Your task to perform on an android device: install app "Duolingo: language lessons" Image 0: 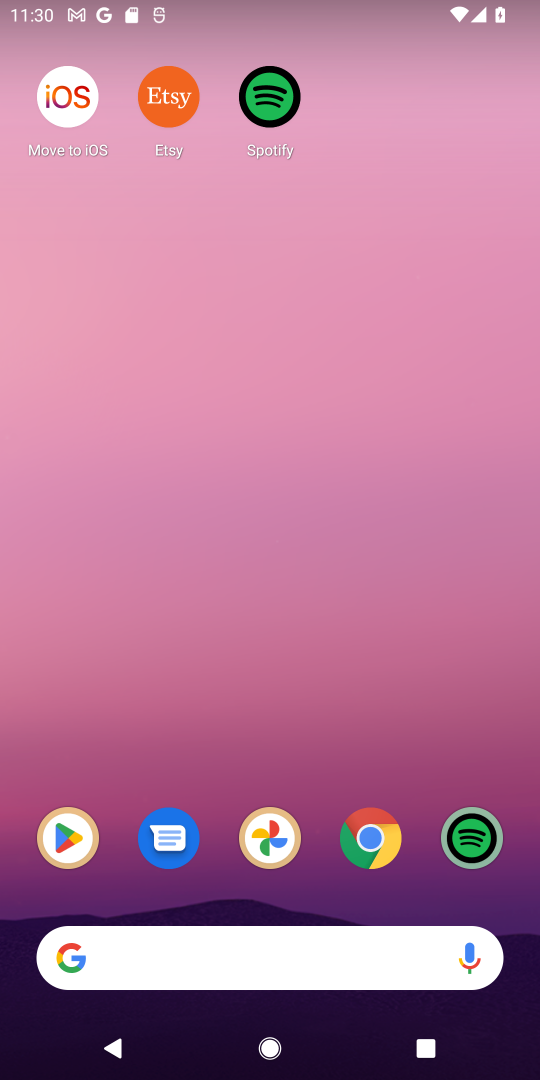
Step 0: click (69, 840)
Your task to perform on an android device: install app "Duolingo: language lessons" Image 1: 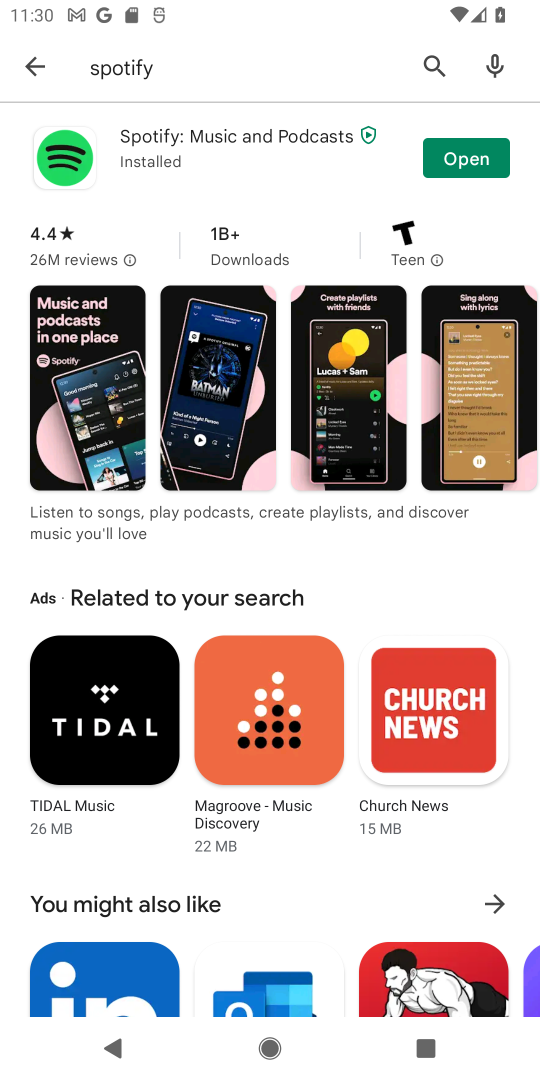
Step 1: click (440, 64)
Your task to perform on an android device: install app "Duolingo: language lessons" Image 2: 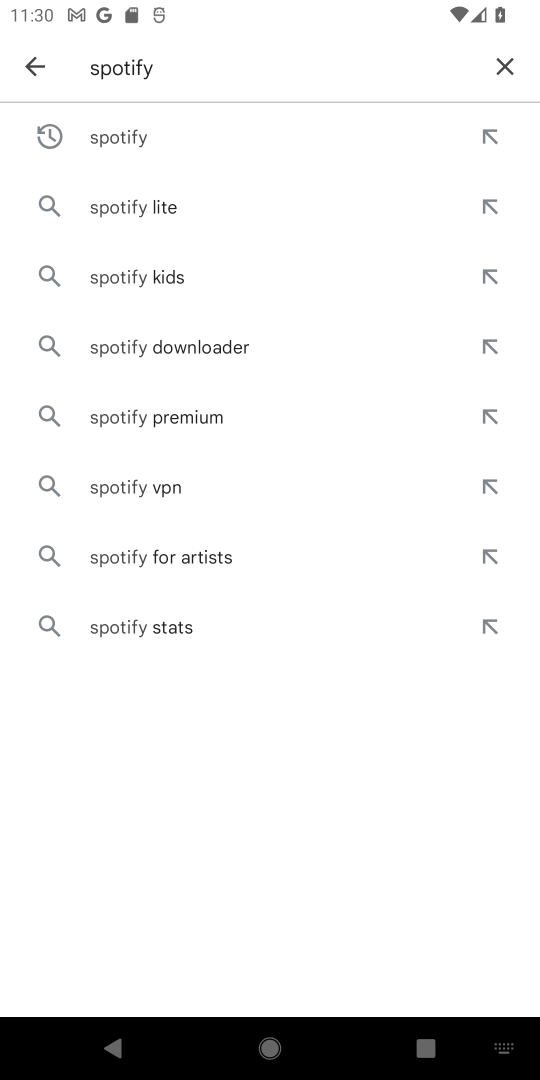
Step 2: click (509, 73)
Your task to perform on an android device: install app "Duolingo: language lessons" Image 3: 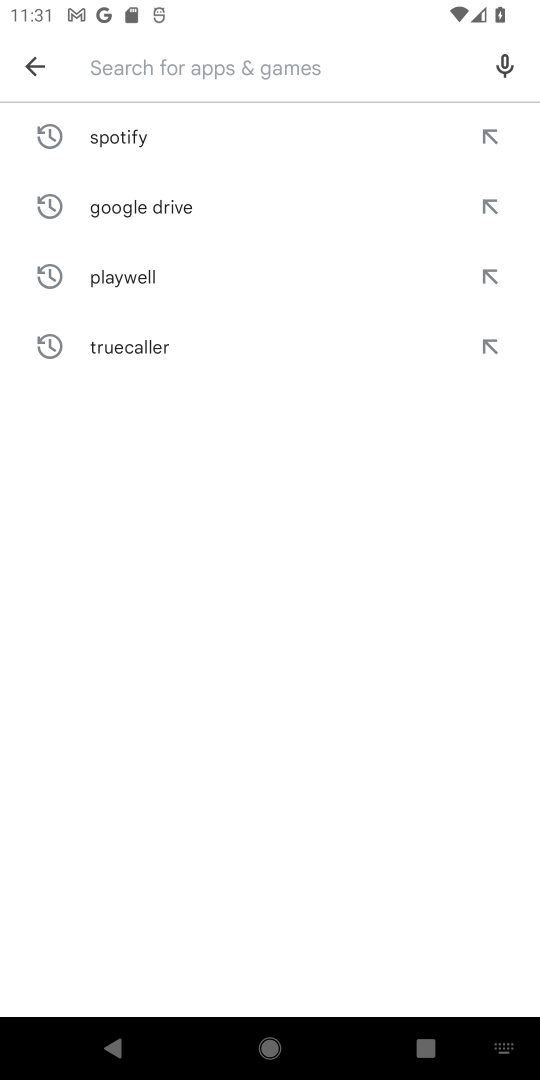
Step 3: type "Duolingo: language lessons"
Your task to perform on an android device: install app "Duolingo: language lessons" Image 4: 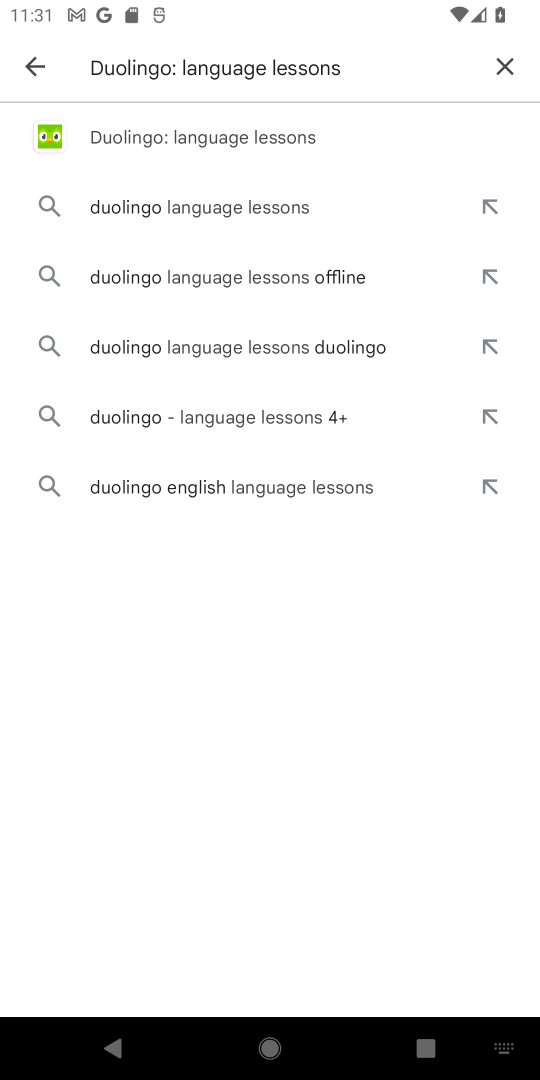
Step 4: click (143, 147)
Your task to perform on an android device: install app "Duolingo: language lessons" Image 5: 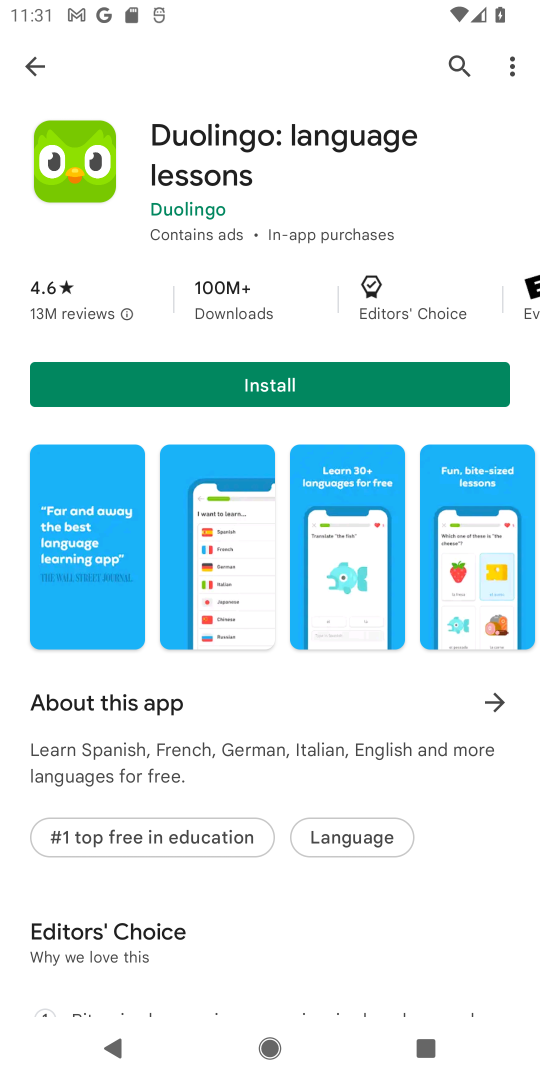
Step 5: click (318, 393)
Your task to perform on an android device: install app "Duolingo: language lessons" Image 6: 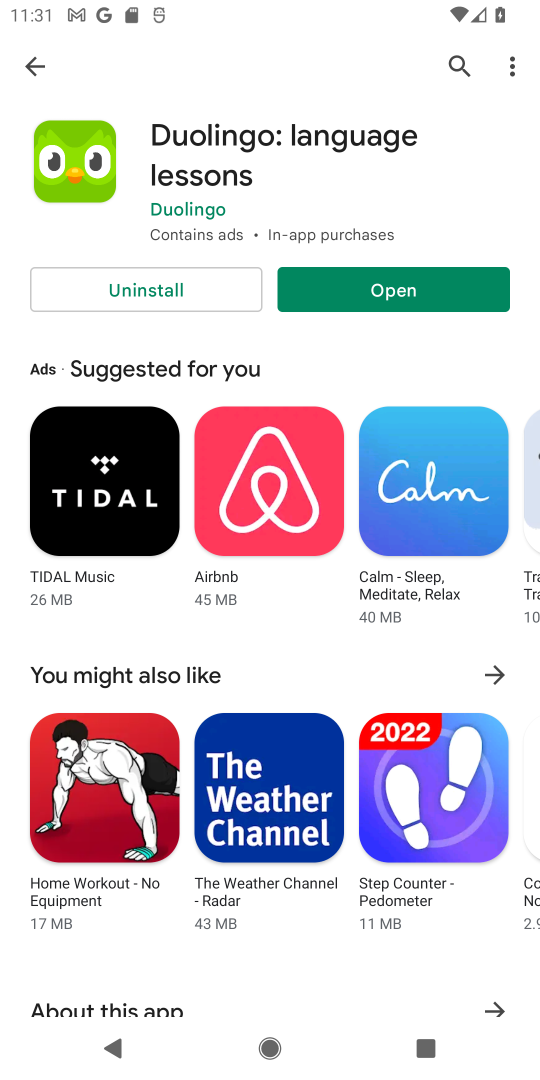
Step 6: task complete